Your task to perform on an android device: toggle improve location accuracy Image 0: 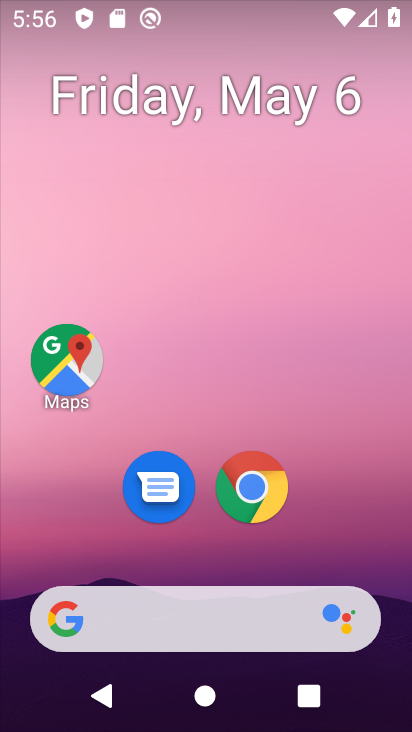
Step 0: drag from (352, 495) to (372, 89)
Your task to perform on an android device: toggle improve location accuracy Image 1: 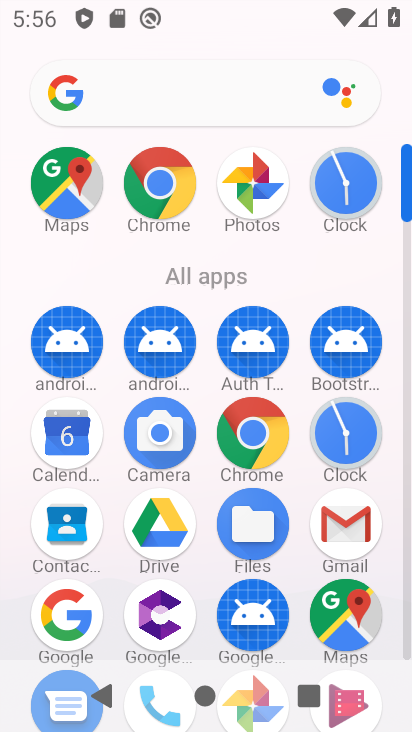
Step 1: drag from (303, 451) to (318, 97)
Your task to perform on an android device: toggle improve location accuracy Image 2: 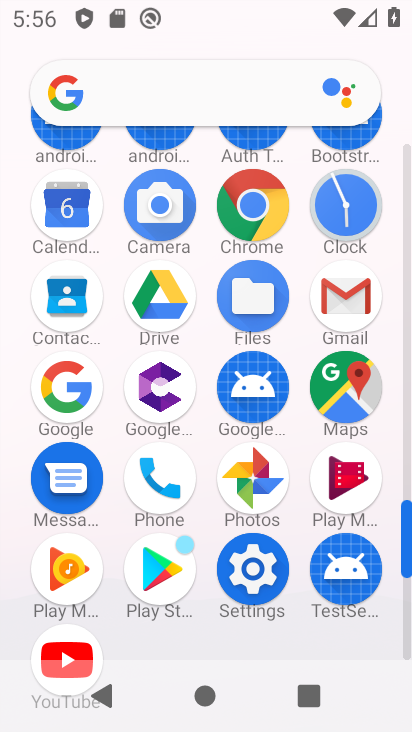
Step 2: click (261, 577)
Your task to perform on an android device: toggle improve location accuracy Image 3: 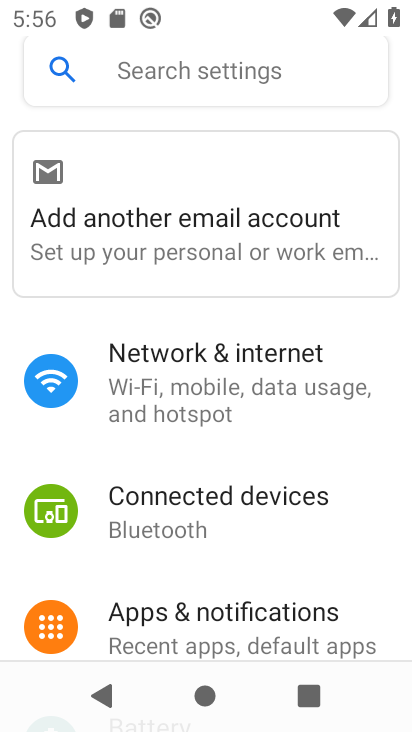
Step 3: drag from (362, 563) to (362, 201)
Your task to perform on an android device: toggle improve location accuracy Image 4: 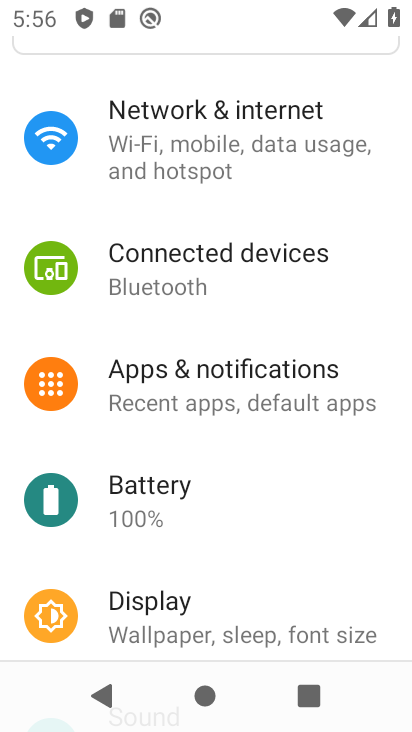
Step 4: drag from (326, 573) to (342, 235)
Your task to perform on an android device: toggle improve location accuracy Image 5: 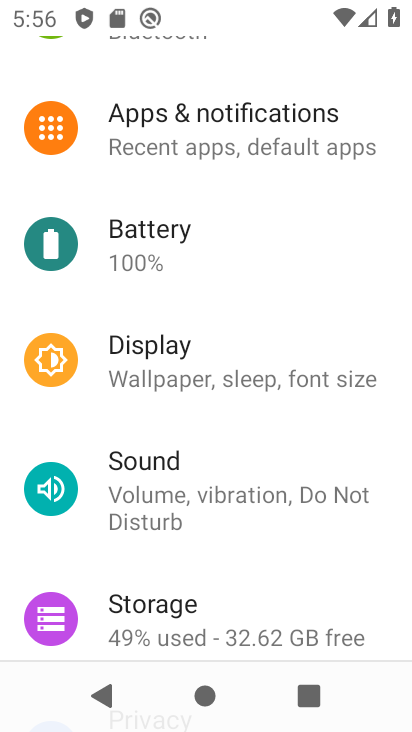
Step 5: drag from (314, 529) to (337, 167)
Your task to perform on an android device: toggle improve location accuracy Image 6: 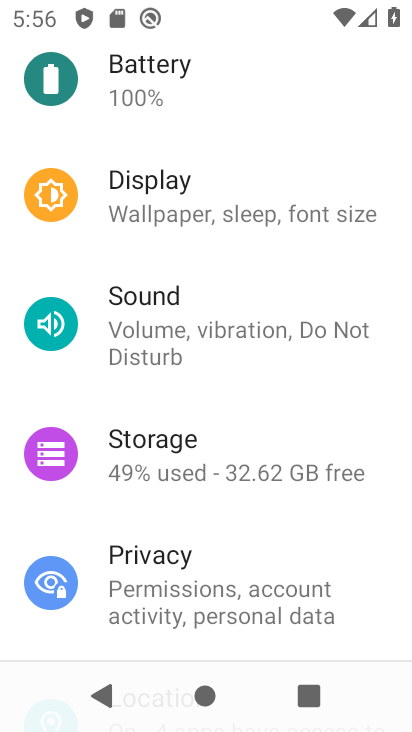
Step 6: drag from (343, 538) to (358, 210)
Your task to perform on an android device: toggle improve location accuracy Image 7: 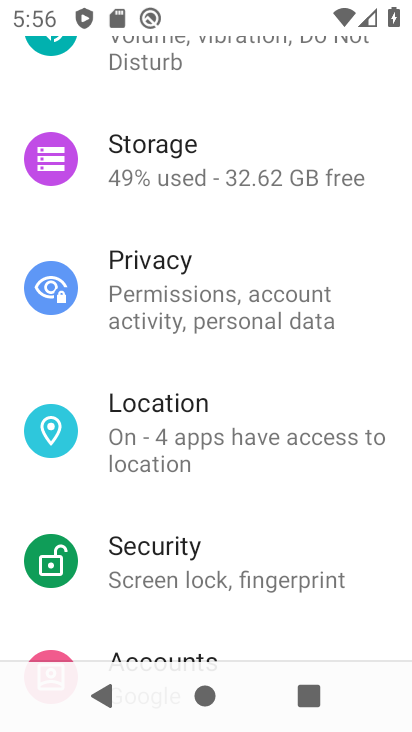
Step 7: click (144, 442)
Your task to perform on an android device: toggle improve location accuracy Image 8: 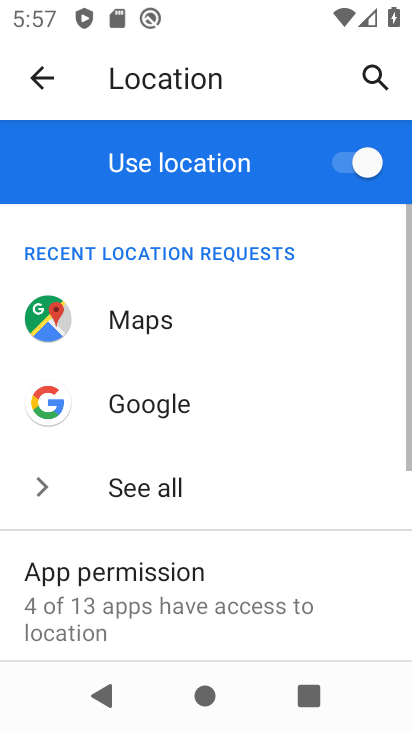
Step 8: drag from (275, 544) to (328, 208)
Your task to perform on an android device: toggle improve location accuracy Image 9: 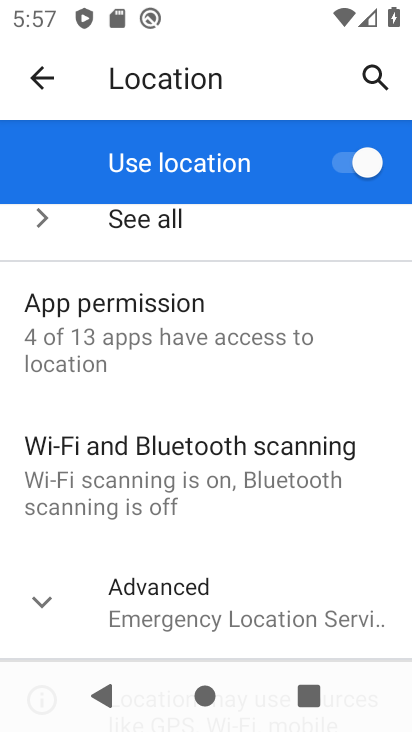
Step 9: click (220, 611)
Your task to perform on an android device: toggle improve location accuracy Image 10: 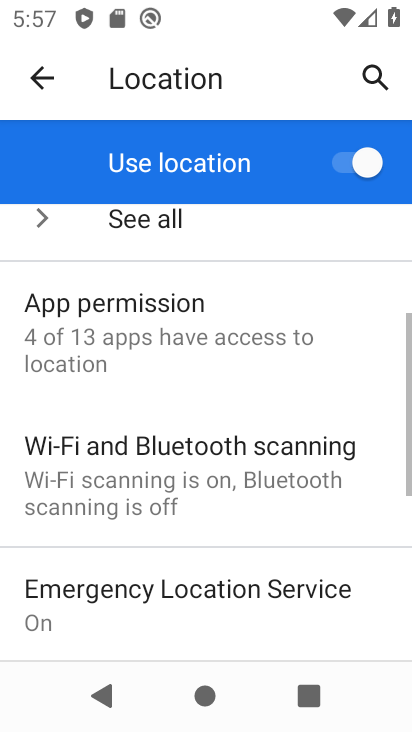
Step 10: drag from (334, 548) to (388, 302)
Your task to perform on an android device: toggle improve location accuracy Image 11: 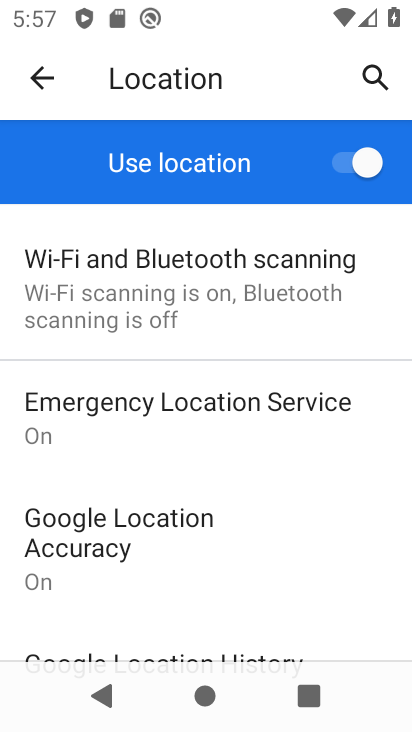
Step 11: click (79, 509)
Your task to perform on an android device: toggle improve location accuracy Image 12: 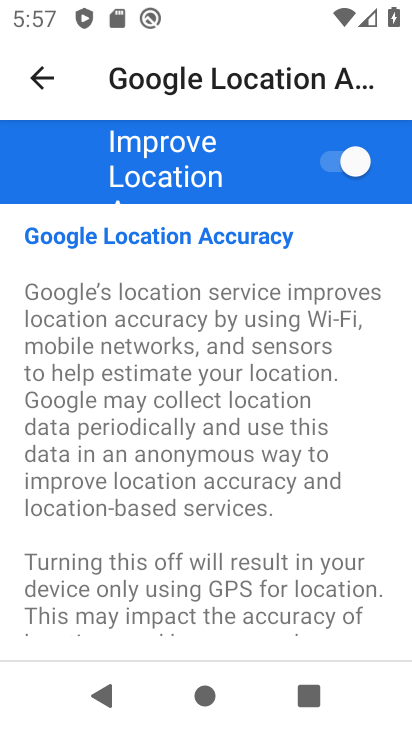
Step 12: click (333, 159)
Your task to perform on an android device: toggle improve location accuracy Image 13: 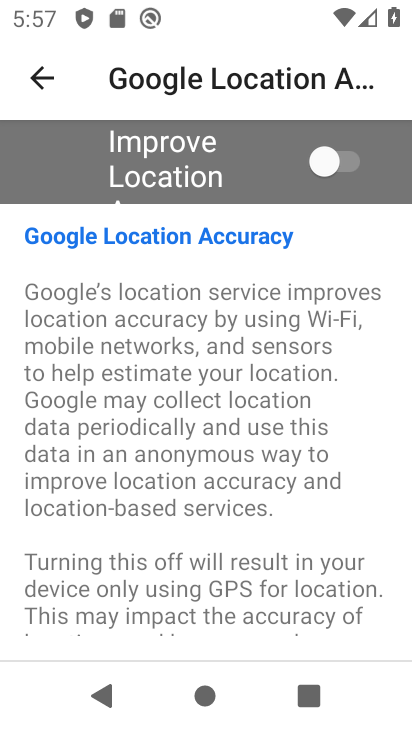
Step 13: task complete